Your task to perform on an android device: Check the news Image 0: 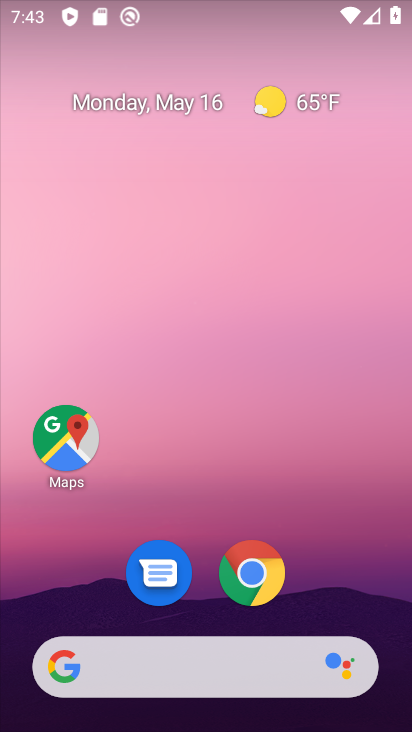
Step 0: drag from (341, 550) to (355, 20)
Your task to perform on an android device: Check the news Image 1: 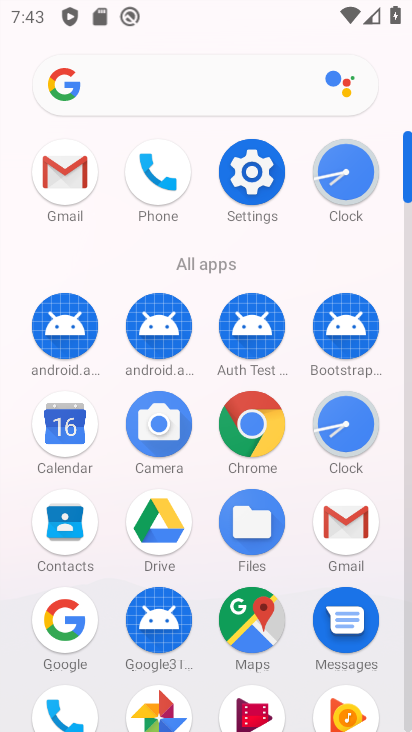
Step 1: click (183, 86)
Your task to perform on an android device: Check the news Image 2: 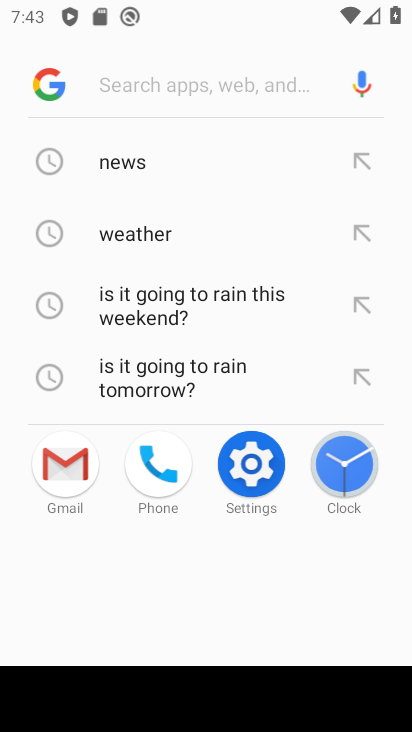
Step 2: type "news"
Your task to perform on an android device: Check the news Image 3: 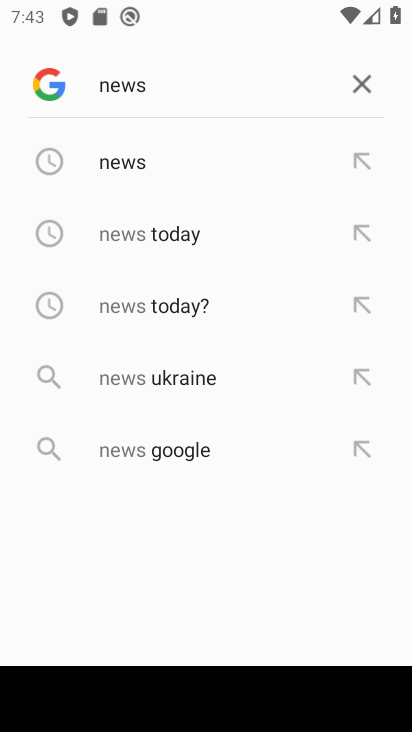
Step 3: click (94, 157)
Your task to perform on an android device: Check the news Image 4: 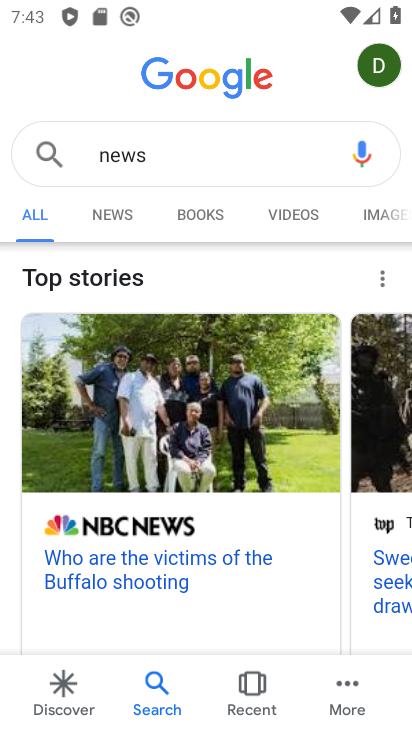
Step 4: click (112, 213)
Your task to perform on an android device: Check the news Image 5: 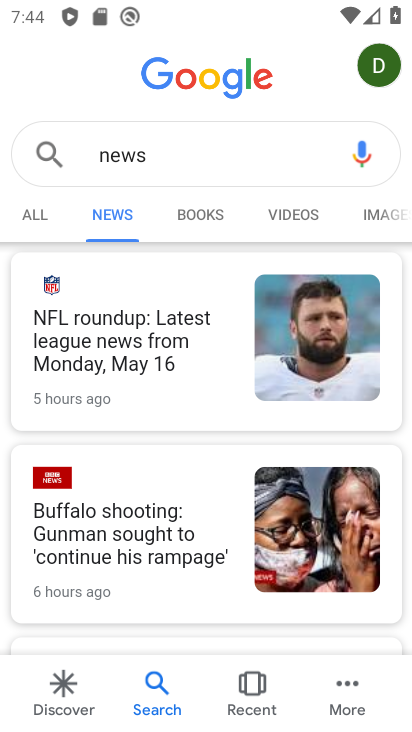
Step 5: task complete